Your task to perform on an android device: turn off airplane mode Image 0: 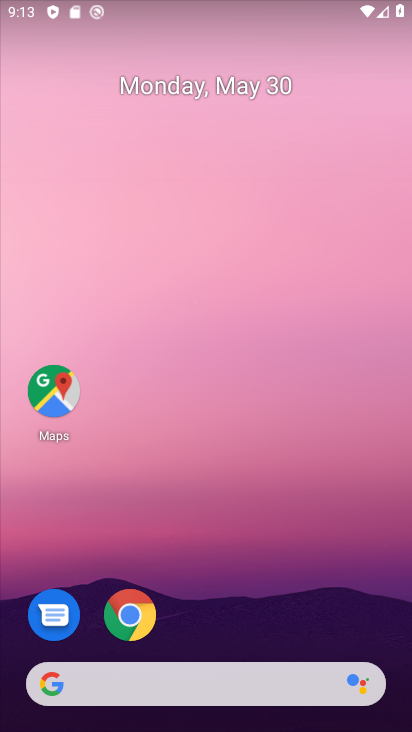
Step 0: drag from (288, 14) to (187, 509)
Your task to perform on an android device: turn off airplane mode Image 1: 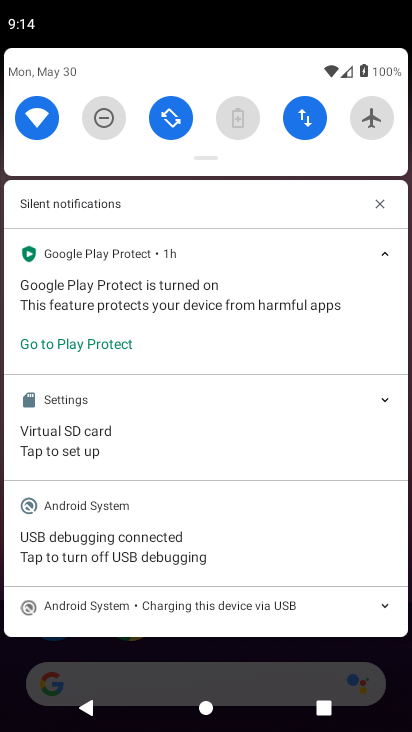
Step 1: task complete